Your task to perform on an android device: Open Youtube and go to "Your channel" Image 0: 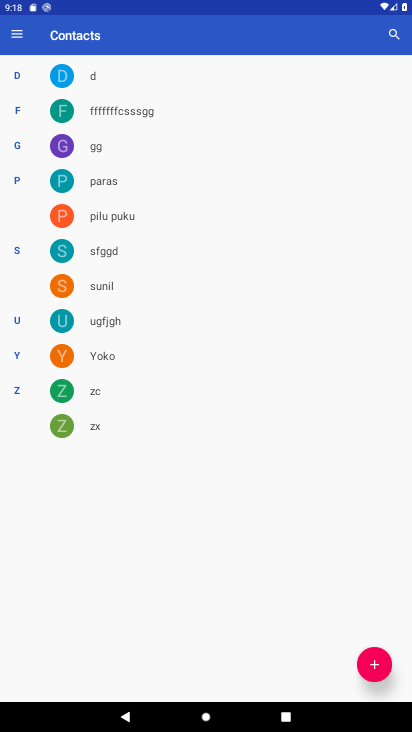
Step 0: press home button
Your task to perform on an android device: Open Youtube and go to "Your channel" Image 1: 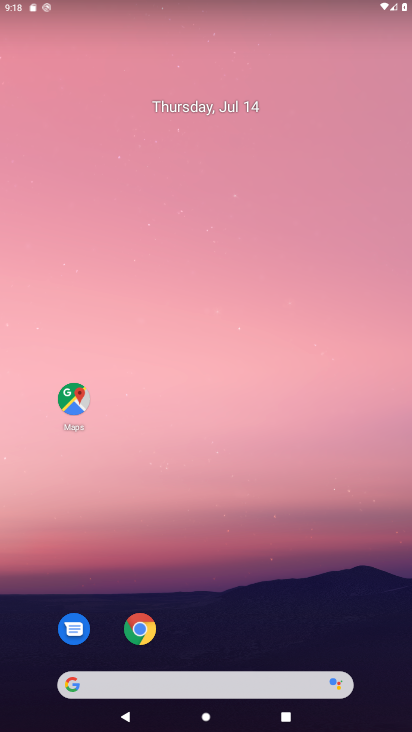
Step 1: drag from (311, 639) to (299, 93)
Your task to perform on an android device: Open Youtube and go to "Your channel" Image 2: 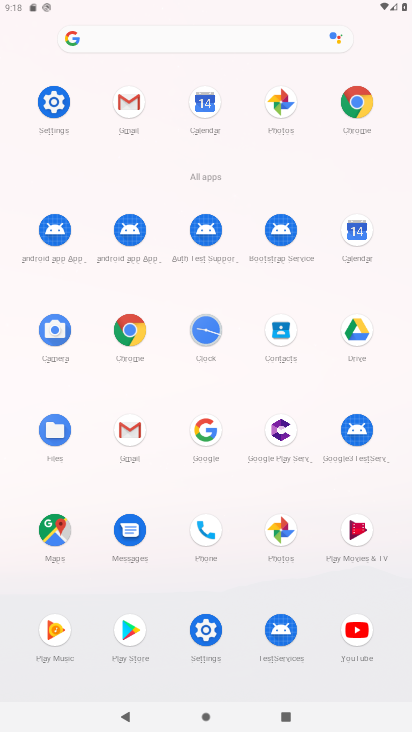
Step 2: click (356, 632)
Your task to perform on an android device: Open Youtube and go to "Your channel" Image 3: 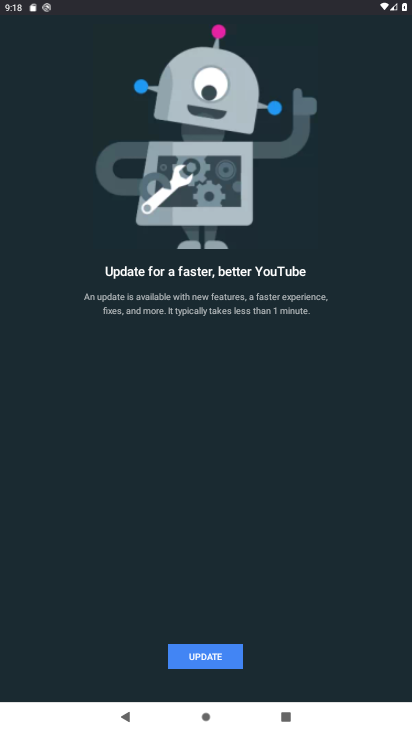
Step 3: click (228, 646)
Your task to perform on an android device: Open Youtube and go to "Your channel" Image 4: 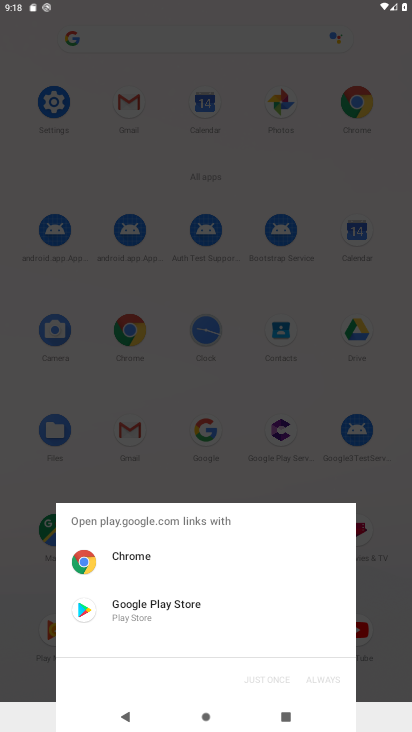
Step 4: click (185, 606)
Your task to perform on an android device: Open Youtube and go to "Your channel" Image 5: 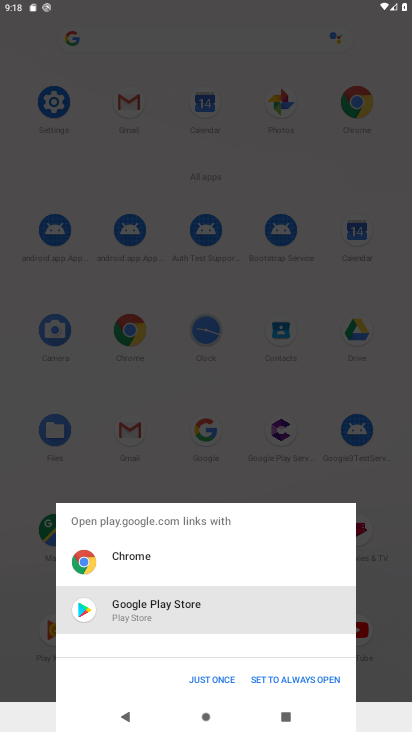
Step 5: click (220, 681)
Your task to perform on an android device: Open Youtube and go to "Your channel" Image 6: 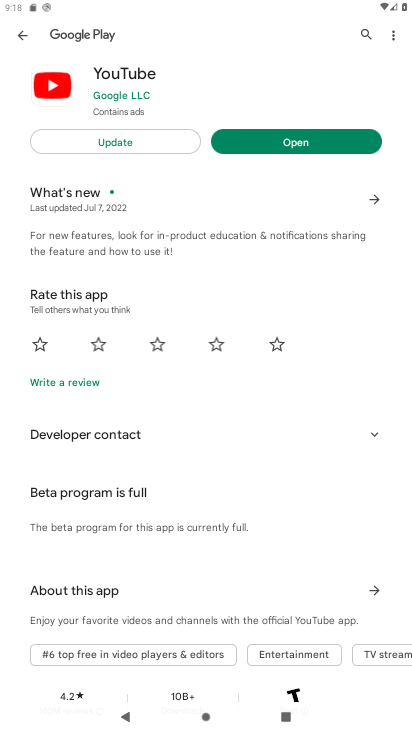
Step 6: click (98, 133)
Your task to perform on an android device: Open Youtube and go to "Your channel" Image 7: 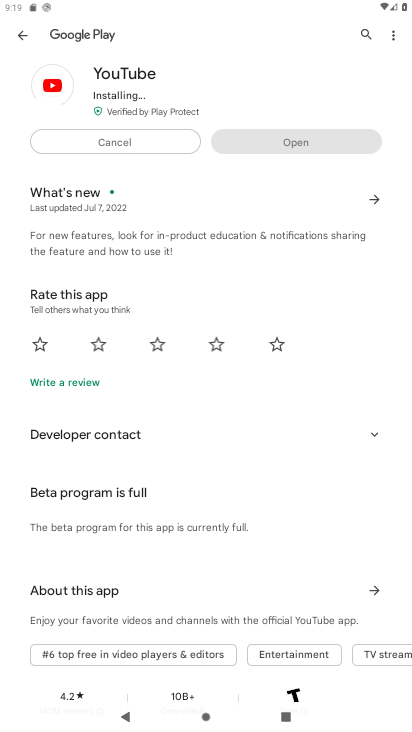
Step 7: task complete